Your task to perform on an android device: find snoozed emails in the gmail app Image 0: 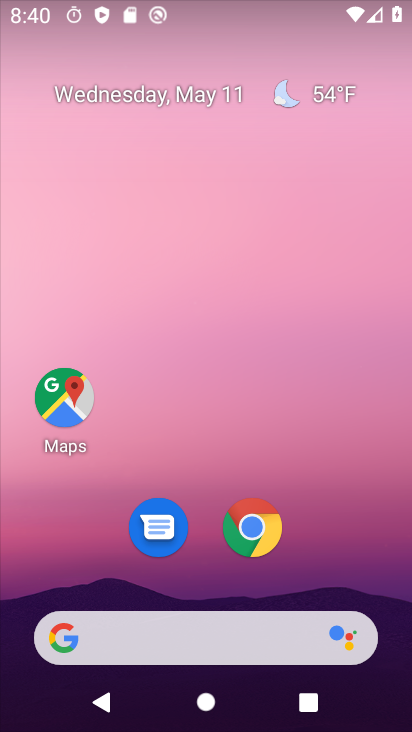
Step 0: drag from (214, 557) to (201, 51)
Your task to perform on an android device: find snoozed emails in the gmail app Image 1: 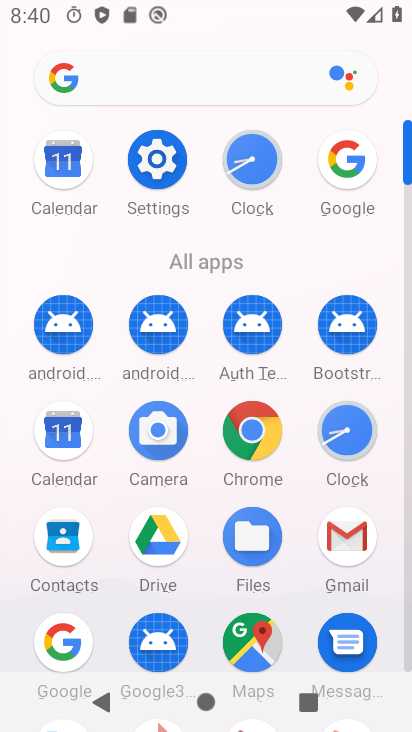
Step 1: click (352, 161)
Your task to perform on an android device: find snoozed emails in the gmail app Image 2: 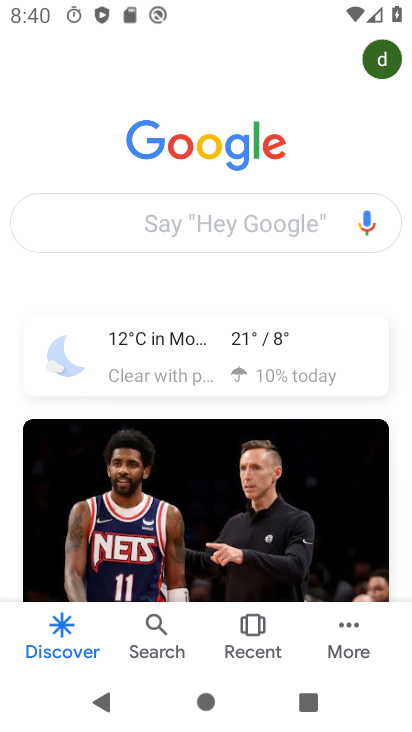
Step 2: click (264, 223)
Your task to perform on an android device: find snoozed emails in the gmail app Image 3: 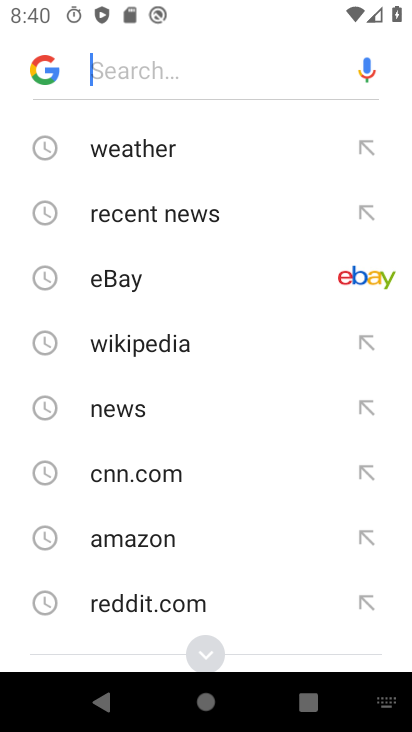
Step 3: type "reddit.com"
Your task to perform on an android device: find snoozed emails in the gmail app Image 4: 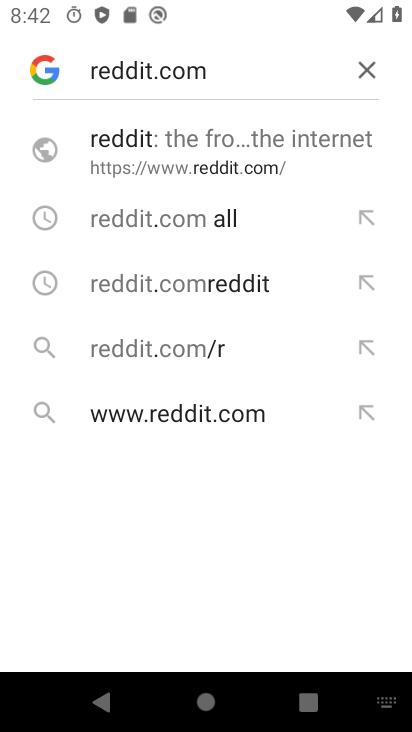
Step 4: click (191, 165)
Your task to perform on an android device: find snoozed emails in the gmail app Image 5: 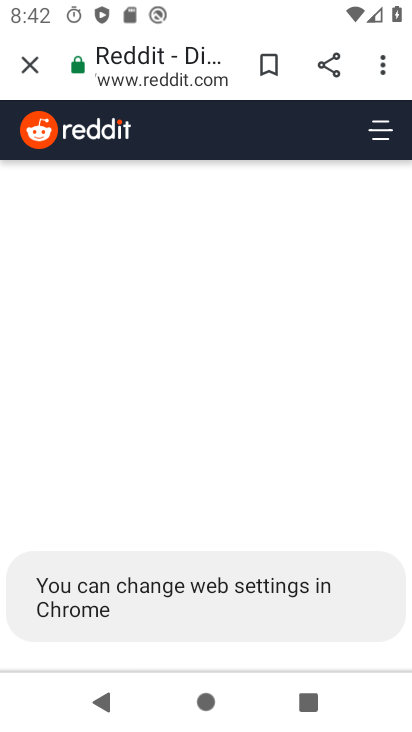
Step 5: task complete